Your task to perform on an android device: check the backup settings in the google photos Image 0: 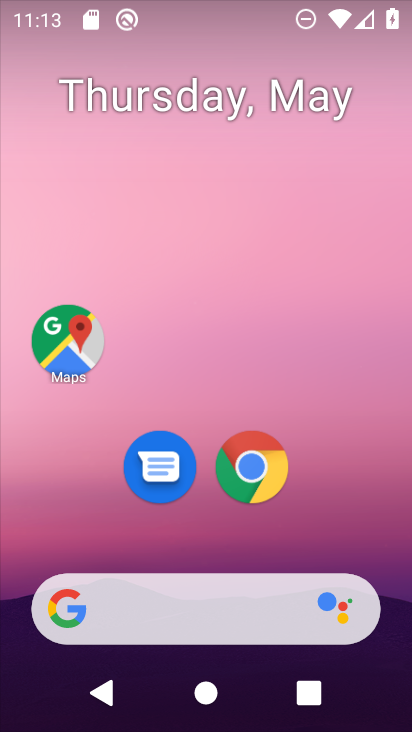
Step 0: drag from (182, 559) to (289, 168)
Your task to perform on an android device: check the backup settings in the google photos Image 1: 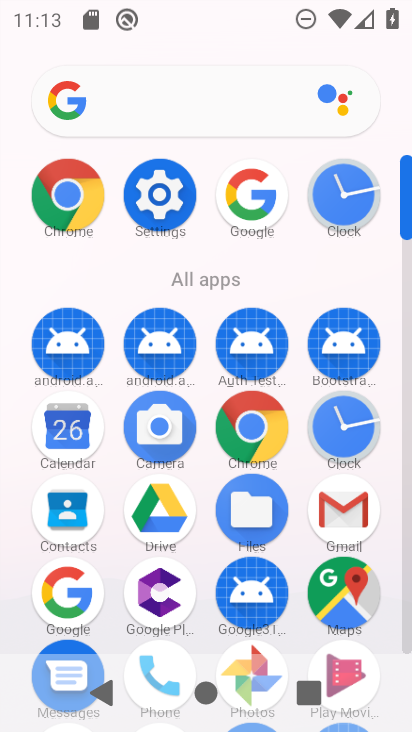
Step 1: drag from (205, 267) to (232, 57)
Your task to perform on an android device: check the backup settings in the google photos Image 2: 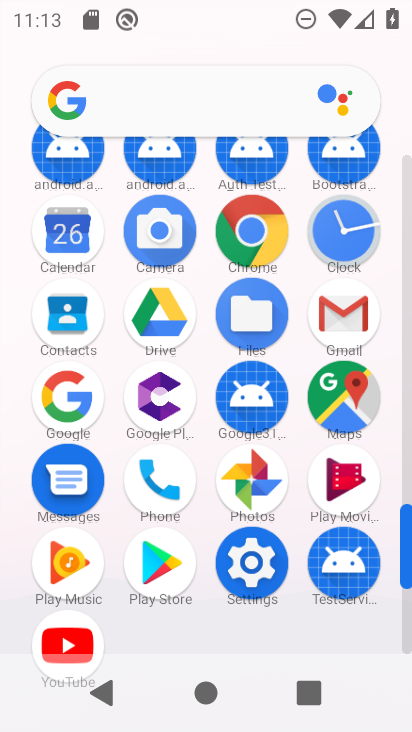
Step 2: click (240, 506)
Your task to perform on an android device: check the backup settings in the google photos Image 3: 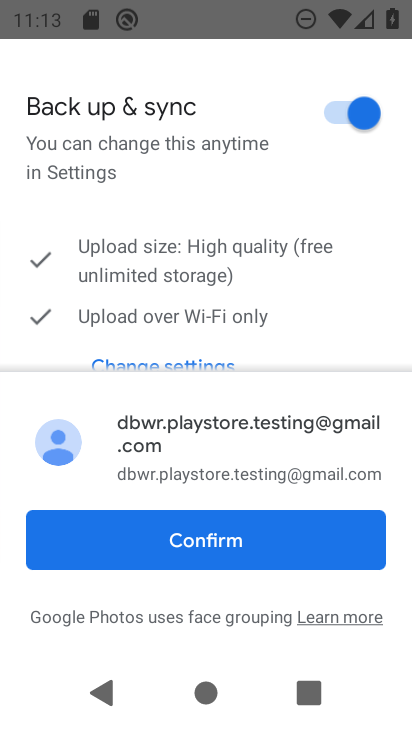
Step 3: click (263, 537)
Your task to perform on an android device: check the backup settings in the google photos Image 4: 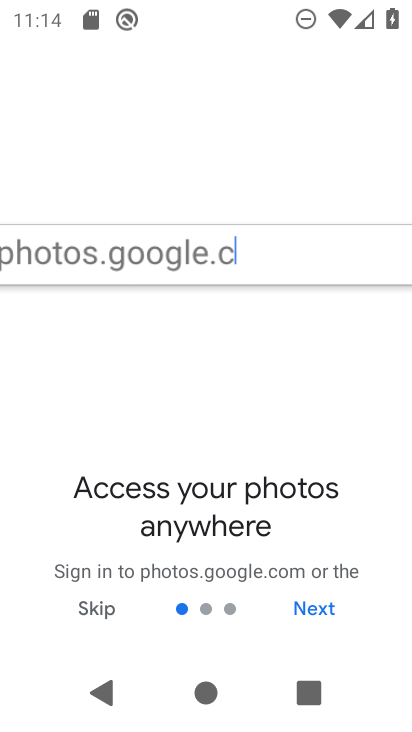
Step 4: click (313, 610)
Your task to perform on an android device: check the backup settings in the google photos Image 5: 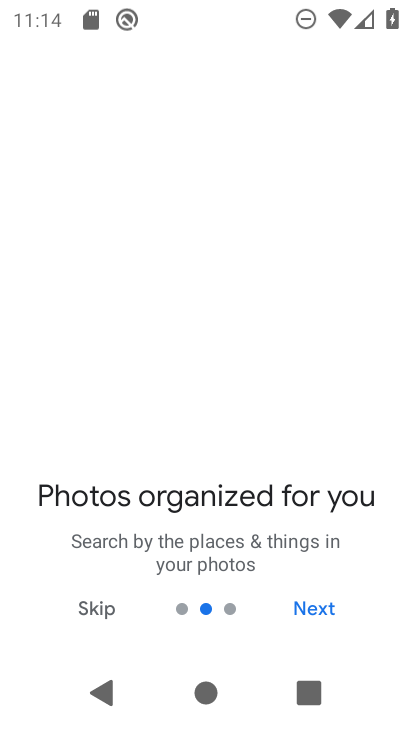
Step 5: click (89, 609)
Your task to perform on an android device: check the backup settings in the google photos Image 6: 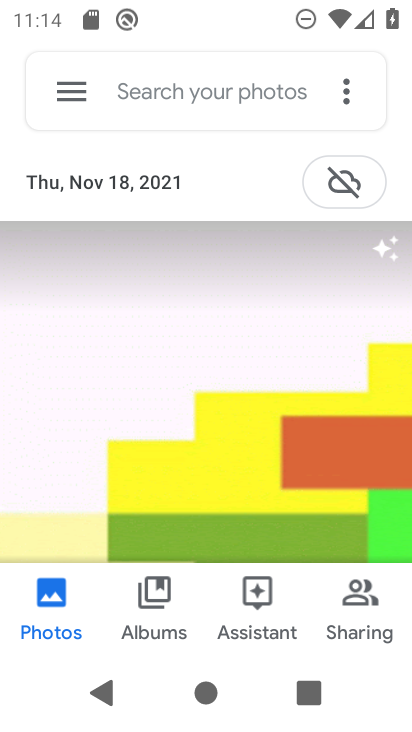
Step 6: click (347, 100)
Your task to perform on an android device: check the backup settings in the google photos Image 7: 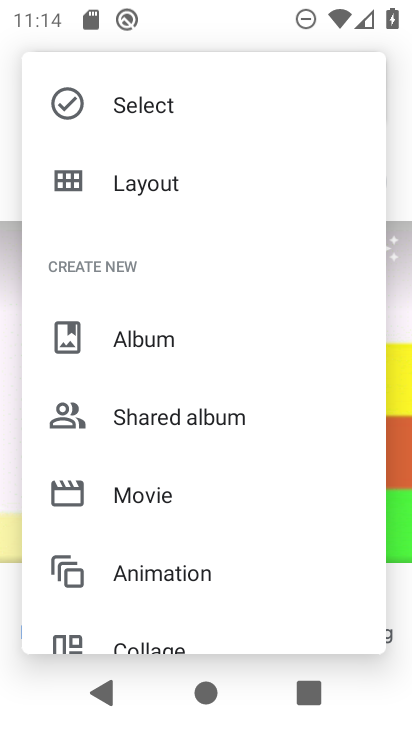
Step 7: drag from (184, 515) to (216, 75)
Your task to perform on an android device: check the backup settings in the google photos Image 8: 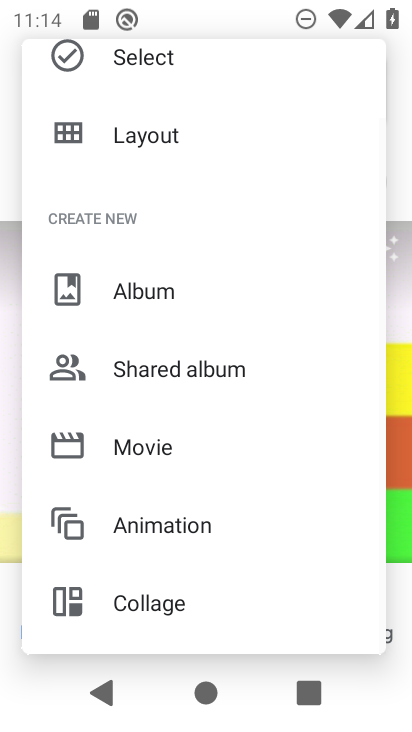
Step 8: press back button
Your task to perform on an android device: check the backup settings in the google photos Image 9: 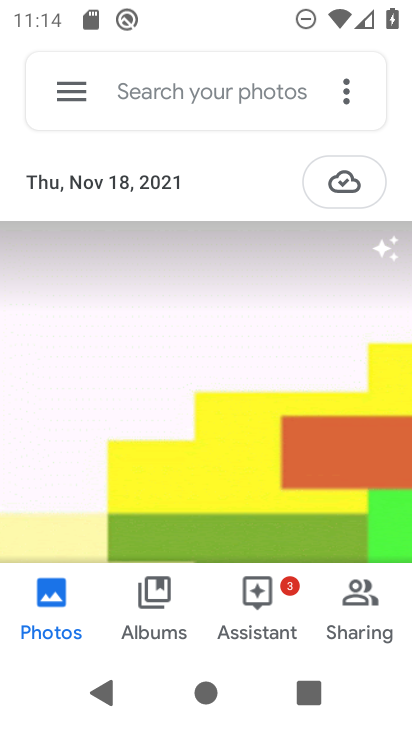
Step 9: click (88, 98)
Your task to perform on an android device: check the backup settings in the google photos Image 10: 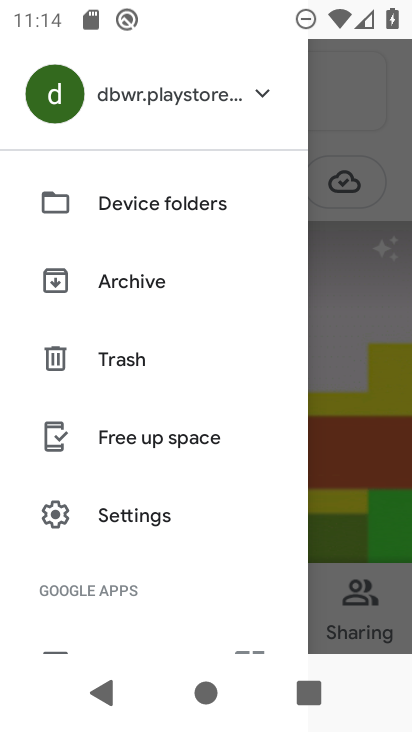
Step 10: click (135, 526)
Your task to perform on an android device: check the backup settings in the google photos Image 11: 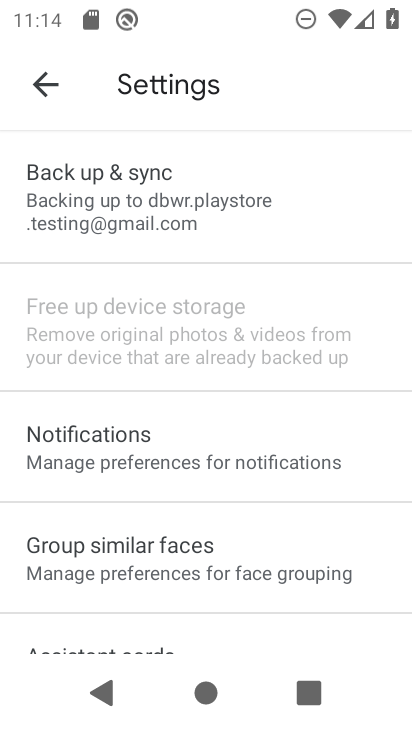
Step 11: click (249, 199)
Your task to perform on an android device: check the backup settings in the google photos Image 12: 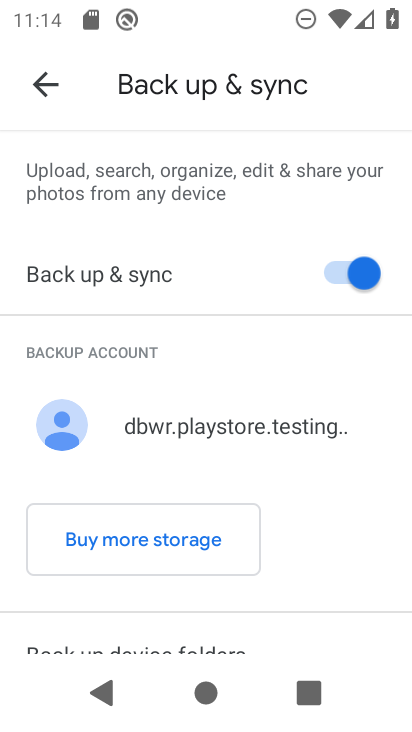
Step 12: task complete